Your task to perform on an android device: See recent photos Image 0: 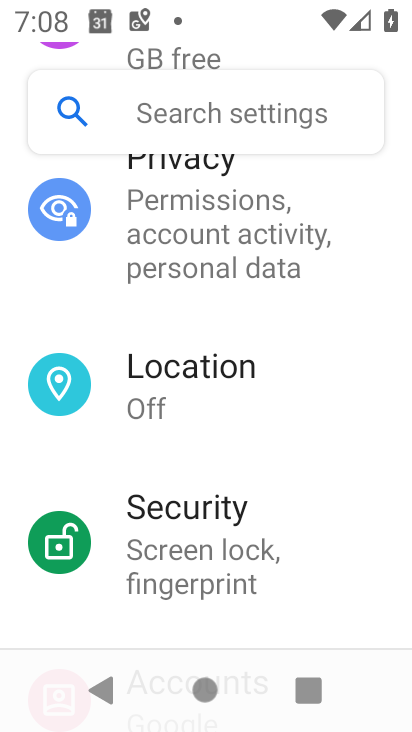
Step 0: press home button
Your task to perform on an android device: See recent photos Image 1: 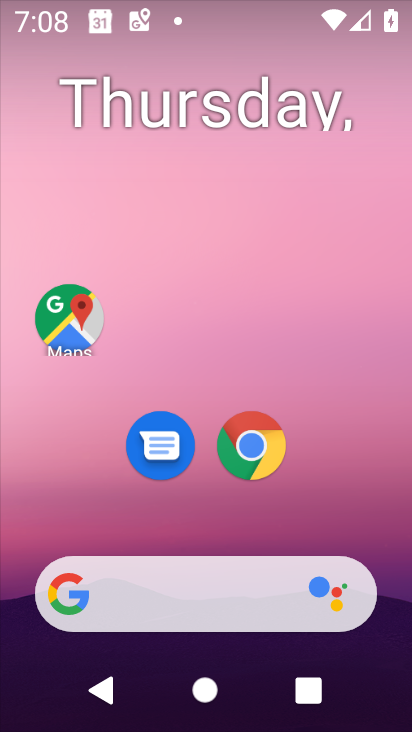
Step 1: drag from (376, 640) to (298, 12)
Your task to perform on an android device: See recent photos Image 2: 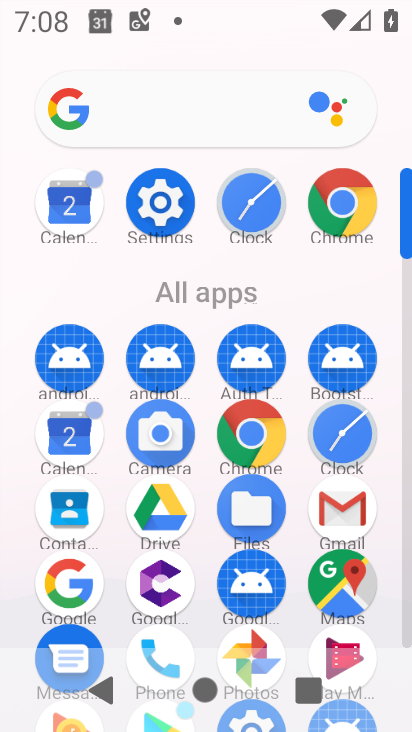
Step 2: drag from (211, 609) to (224, 176)
Your task to perform on an android device: See recent photos Image 3: 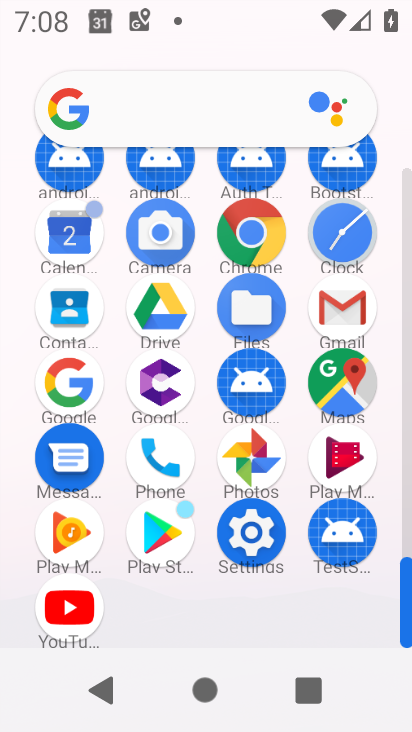
Step 3: click (237, 456)
Your task to perform on an android device: See recent photos Image 4: 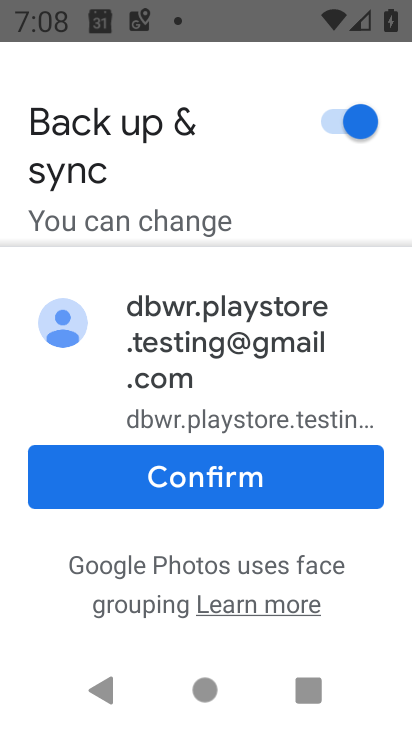
Step 4: click (184, 498)
Your task to perform on an android device: See recent photos Image 5: 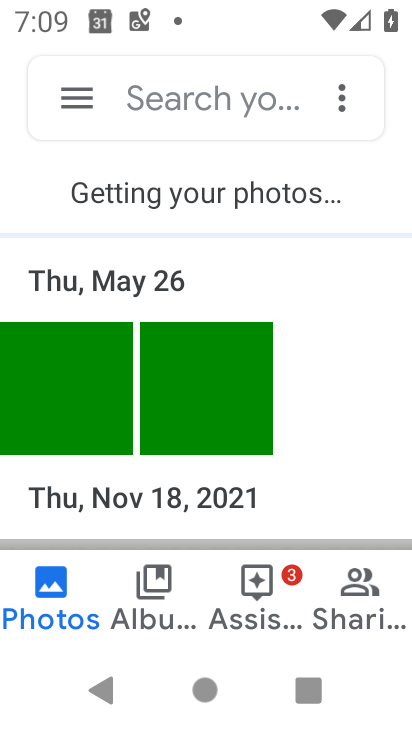
Step 5: click (79, 388)
Your task to perform on an android device: See recent photos Image 6: 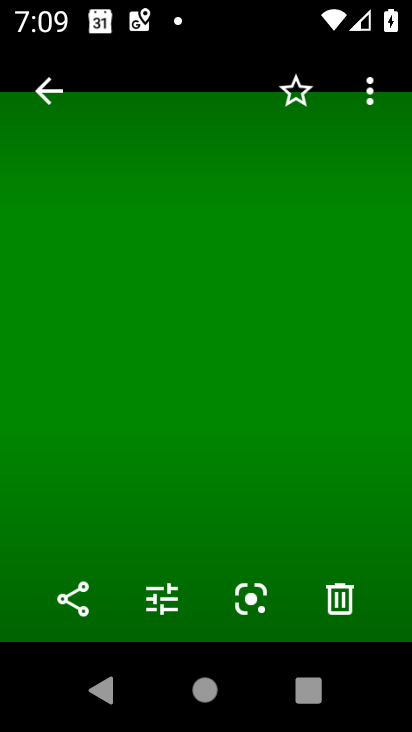
Step 6: task complete